Your task to perform on an android device: Go to Maps Image 0: 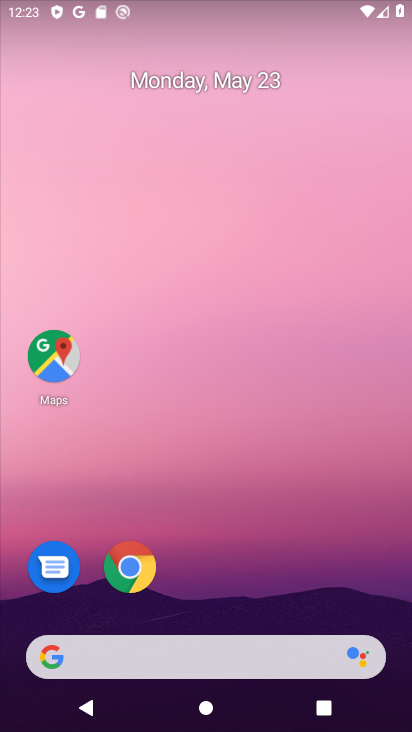
Step 0: click (28, 369)
Your task to perform on an android device: Go to Maps Image 1: 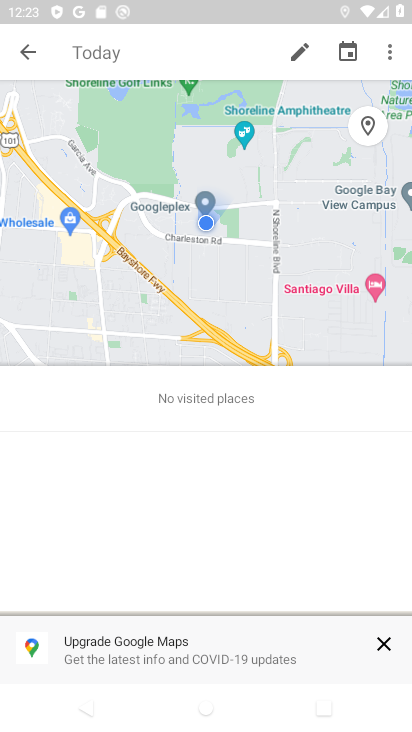
Step 1: task complete